Your task to perform on an android device: Open calendar and show me the third week of next month Image 0: 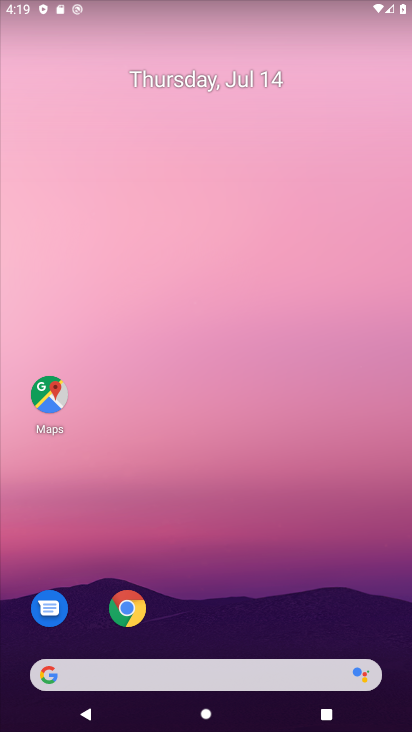
Step 0: drag from (214, 610) to (214, 144)
Your task to perform on an android device: Open calendar and show me the third week of next month Image 1: 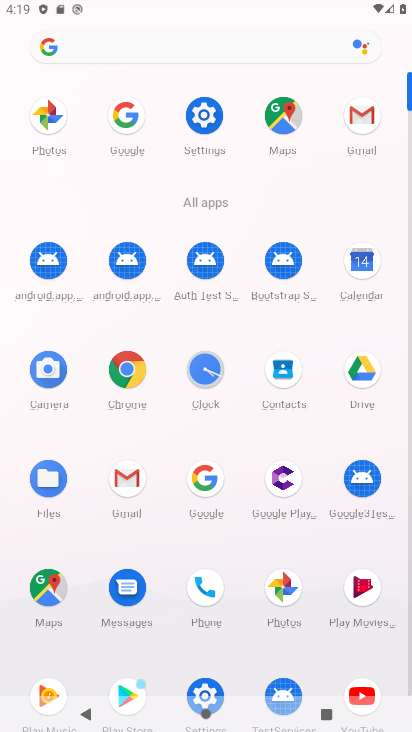
Step 1: click (358, 273)
Your task to perform on an android device: Open calendar and show me the third week of next month Image 2: 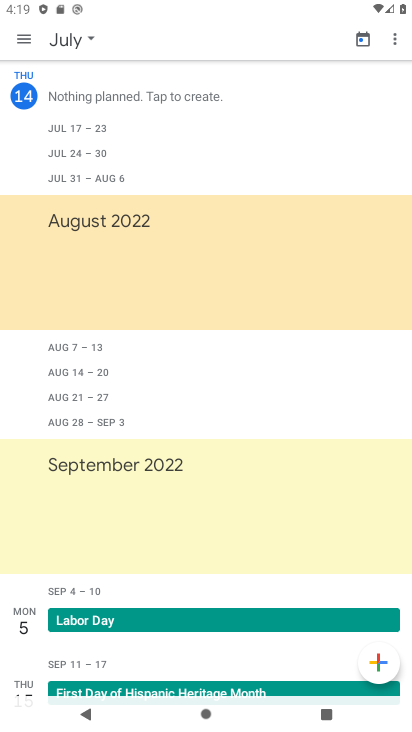
Step 2: click (72, 42)
Your task to perform on an android device: Open calendar and show me the third week of next month Image 3: 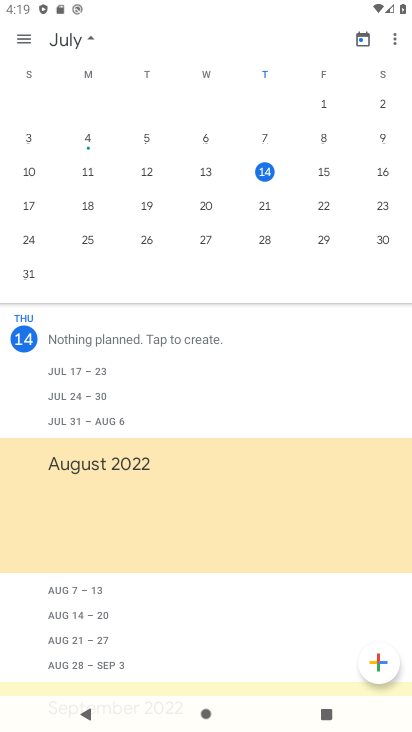
Step 3: drag from (335, 169) to (32, 176)
Your task to perform on an android device: Open calendar and show me the third week of next month Image 4: 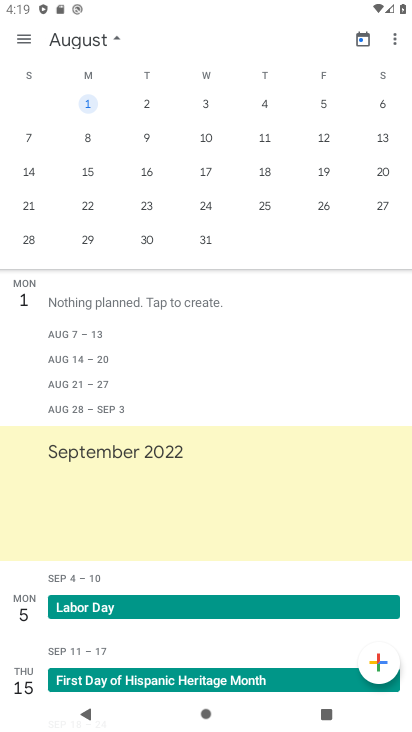
Step 4: click (37, 174)
Your task to perform on an android device: Open calendar and show me the third week of next month Image 5: 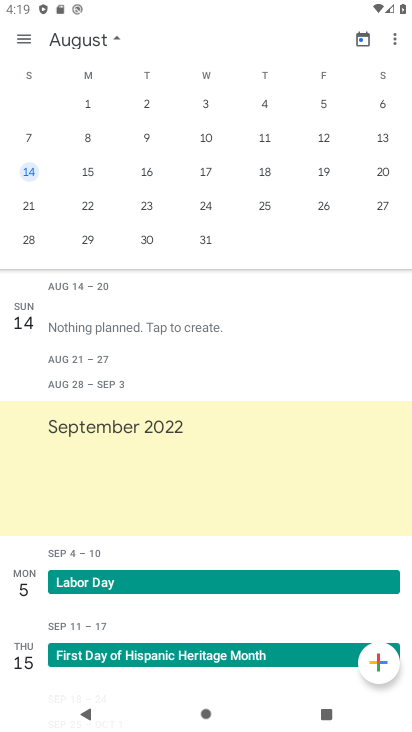
Step 5: task complete